Your task to perform on an android device: Open calendar and show me the second week of next month Image 0: 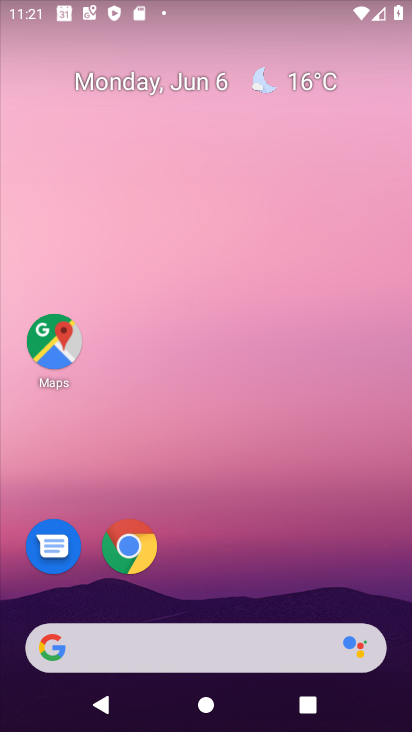
Step 0: drag from (271, 523) to (225, 172)
Your task to perform on an android device: Open calendar and show me the second week of next month Image 1: 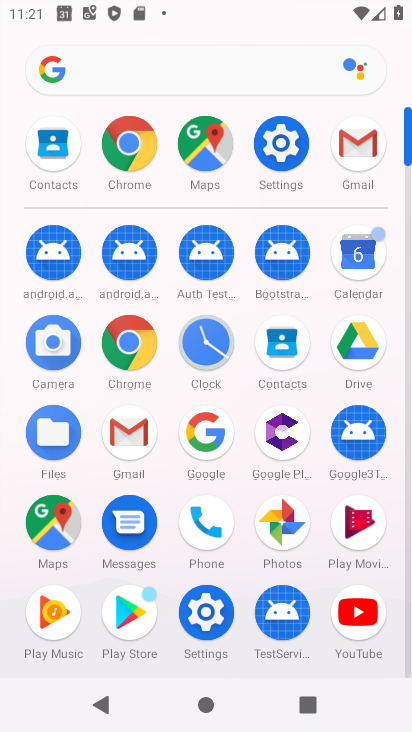
Step 1: click (372, 266)
Your task to perform on an android device: Open calendar and show me the second week of next month Image 2: 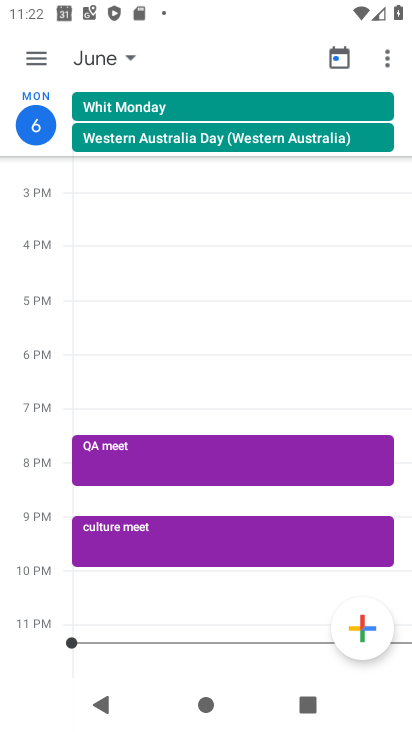
Step 2: click (71, 71)
Your task to perform on an android device: Open calendar and show me the second week of next month Image 3: 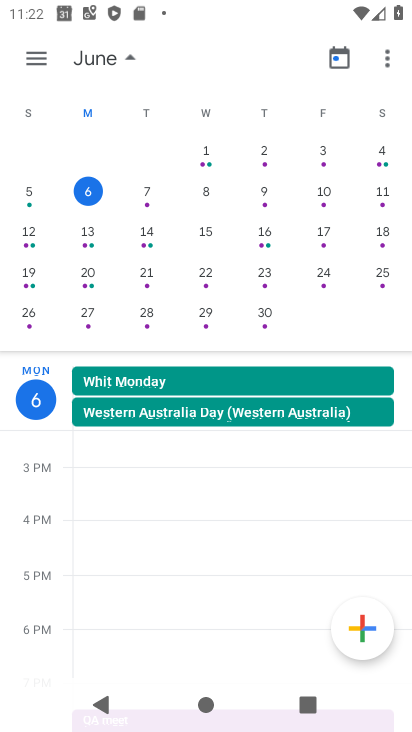
Step 3: drag from (353, 230) to (56, 198)
Your task to perform on an android device: Open calendar and show me the second week of next month Image 4: 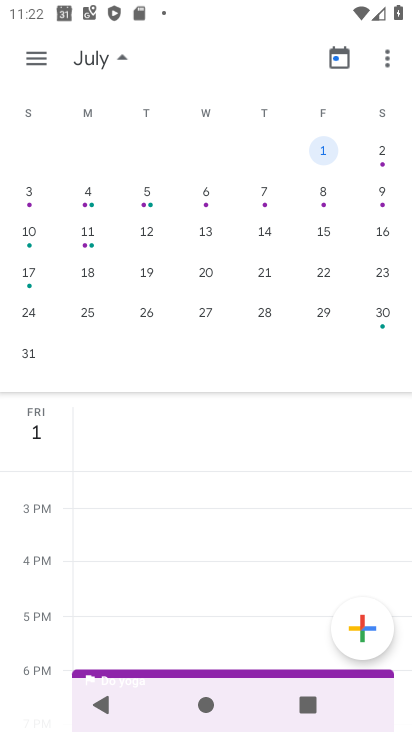
Step 4: click (17, 235)
Your task to perform on an android device: Open calendar and show me the second week of next month Image 5: 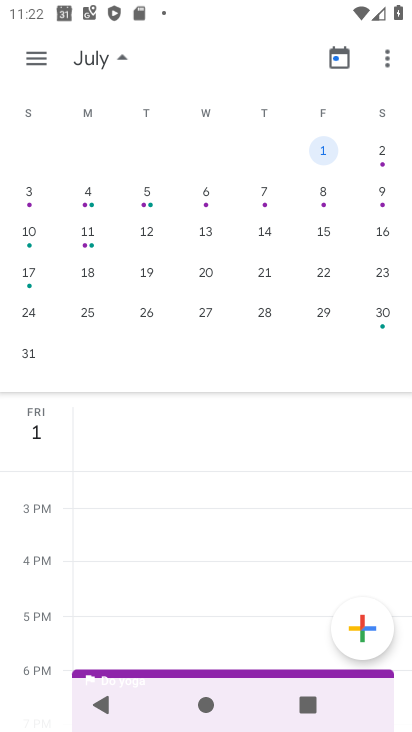
Step 5: click (28, 236)
Your task to perform on an android device: Open calendar and show me the second week of next month Image 6: 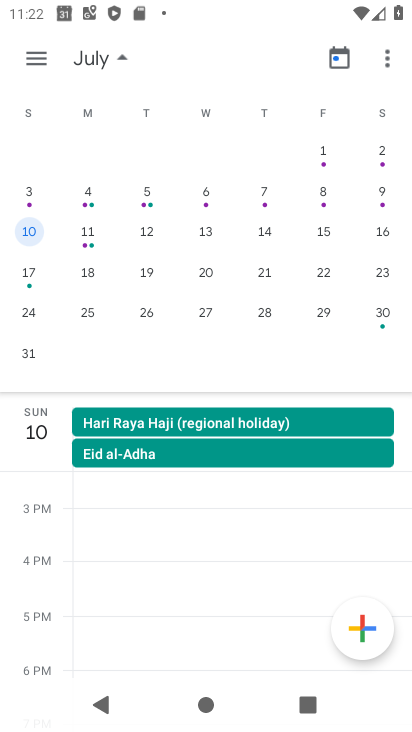
Step 6: click (38, 61)
Your task to perform on an android device: Open calendar and show me the second week of next month Image 7: 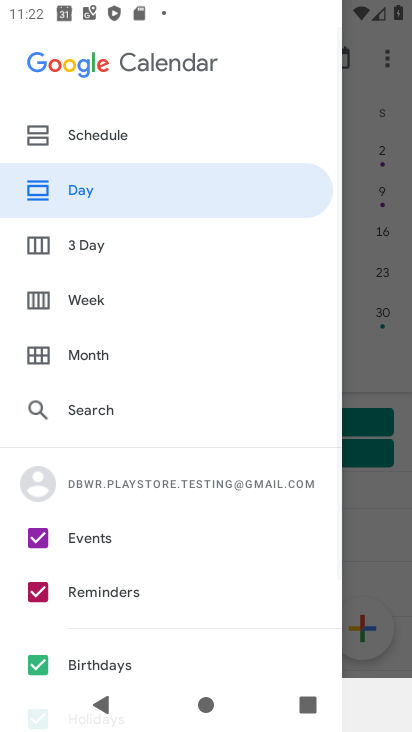
Step 7: click (106, 314)
Your task to perform on an android device: Open calendar and show me the second week of next month Image 8: 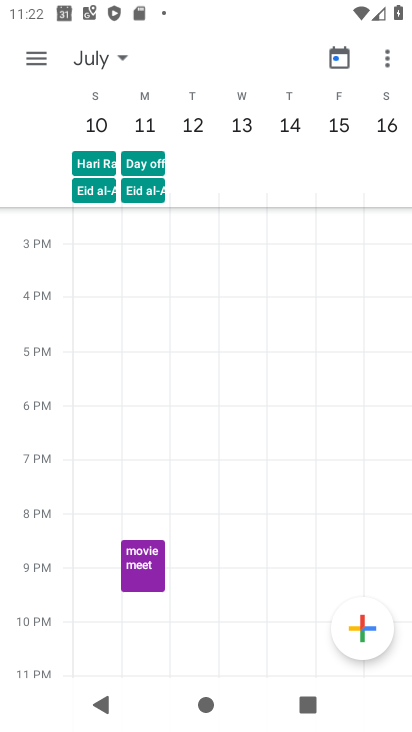
Step 8: task complete